Your task to perform on an android device: Check the weather Image 0: 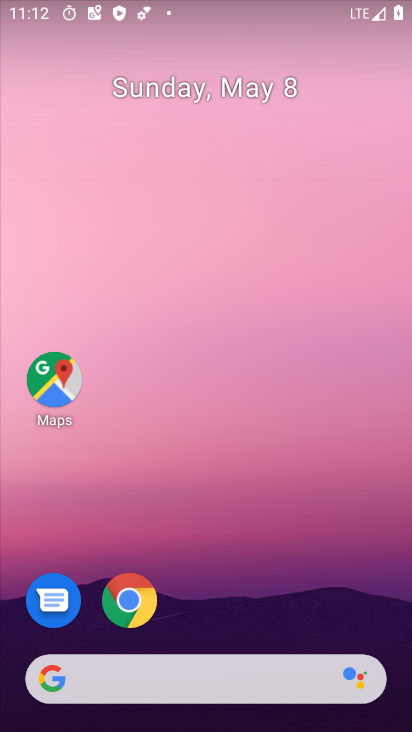
Step 0: click (142, 684)
Your task to perform on an android device: Check the weather Image 1: 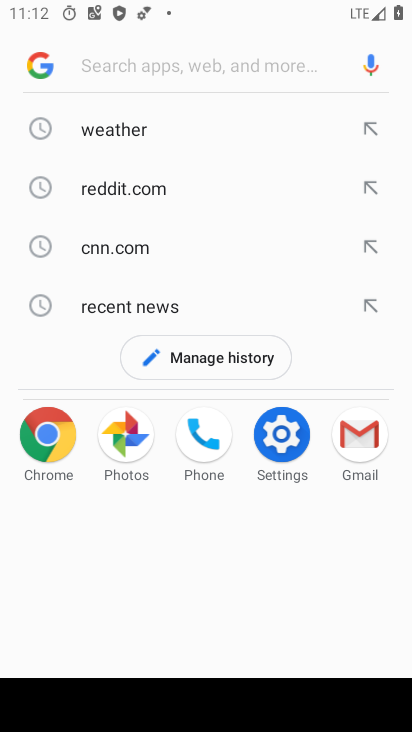
Step 1: click (139, 125)
Your task to perform on an android device: Check the weather Image 2: 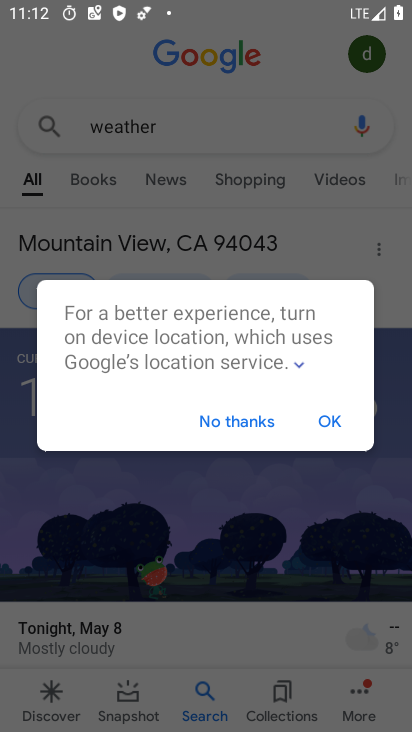
Step 2: task complete